Your task to perform on an android device: Open Google Image 0: 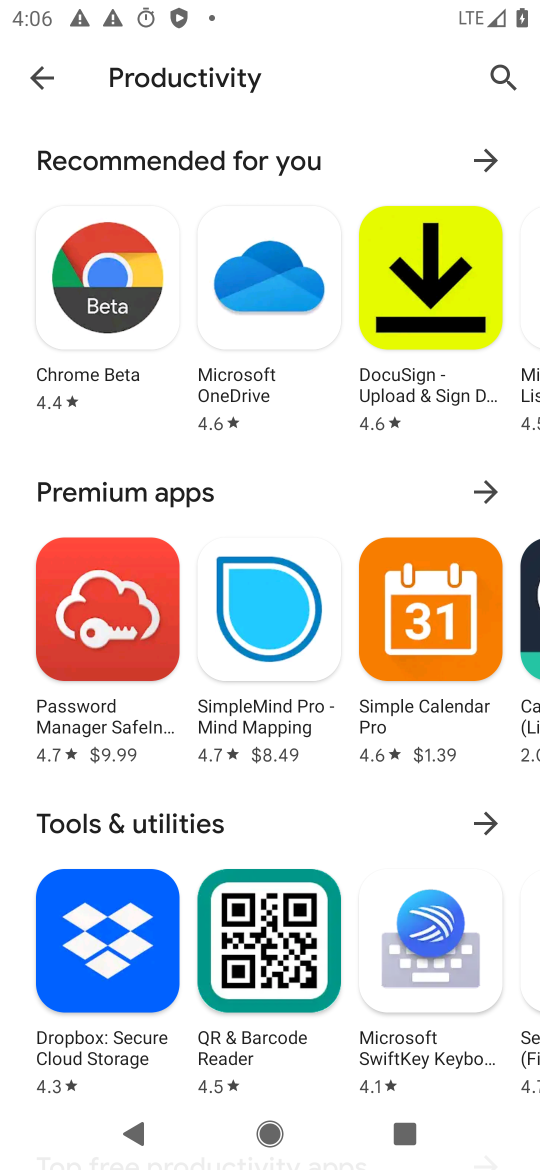
Step 0: press home button
Your task to perform on an android device: Open Google Image 1: 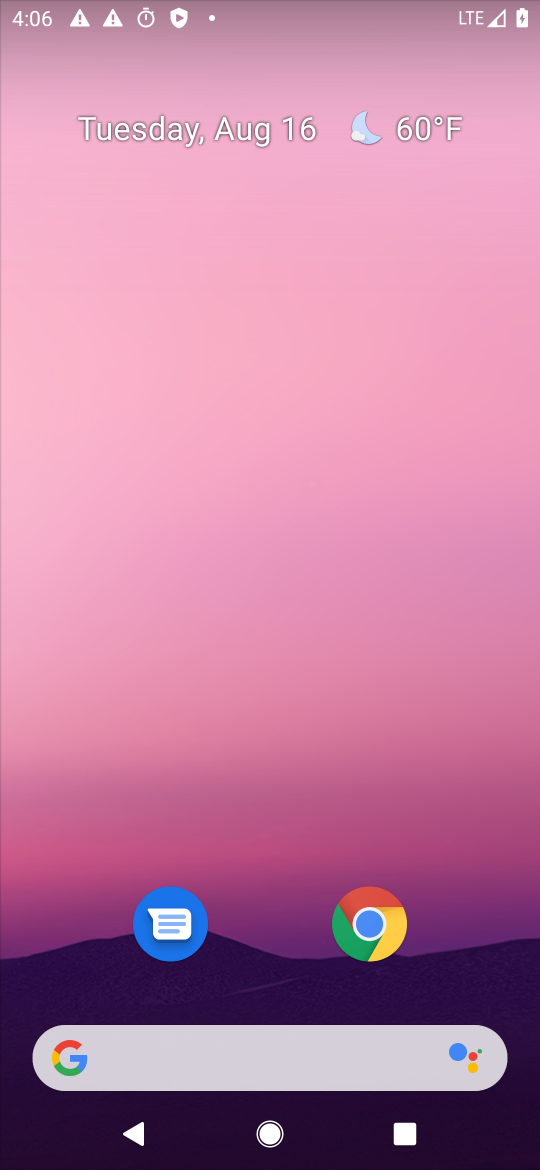
Step 1: click (279, 1044)
Your task to perform on an android device: Open Google Image 2: 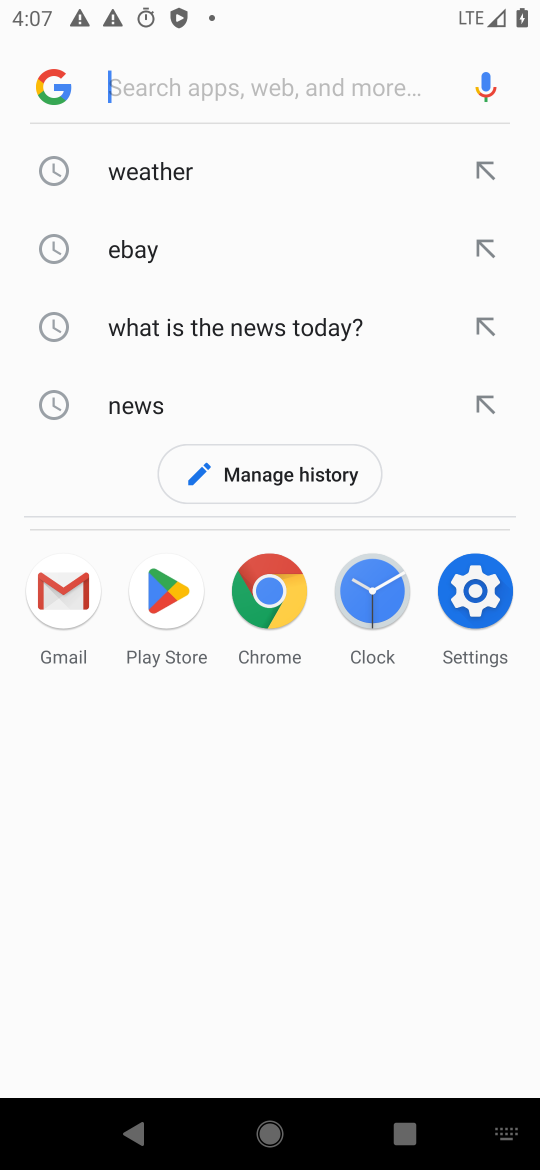
Step 2: task complete